Your task to perform on an android device: Look up the best rated hair dryer on Walmart. Image 0: 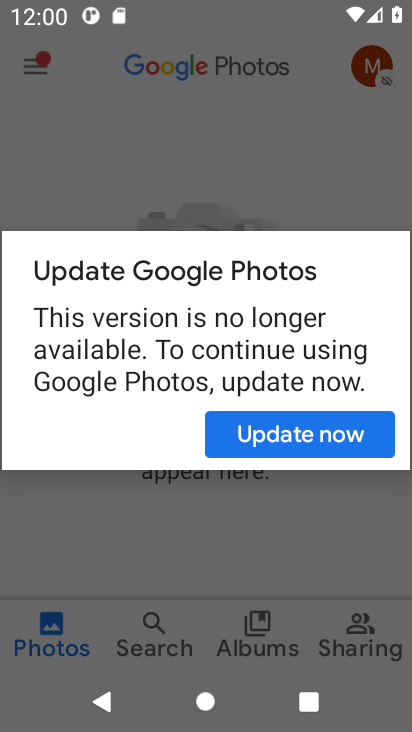
Step 0: press home button
Your task to perform on an android device: Look up the best rated hair dryer on Walmart. Image 1: 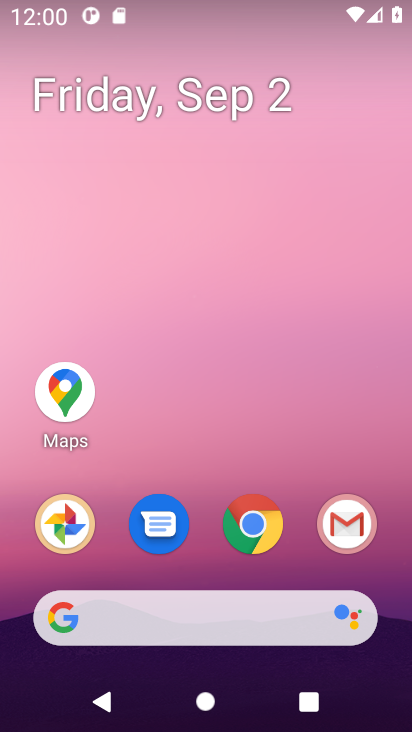
Step 1: drag from (388, 483) to (391, 112)
Your task to perform on an android device: Look up the best rated hair dryer on Walmart. Image 2: 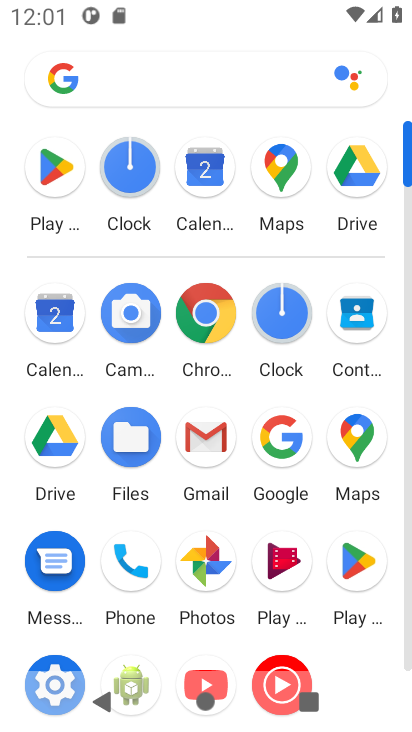
Step 2: click (206, 321)
Your task to perform on an android device: Look up the best rated hair dryer on Walmart. Image 3: 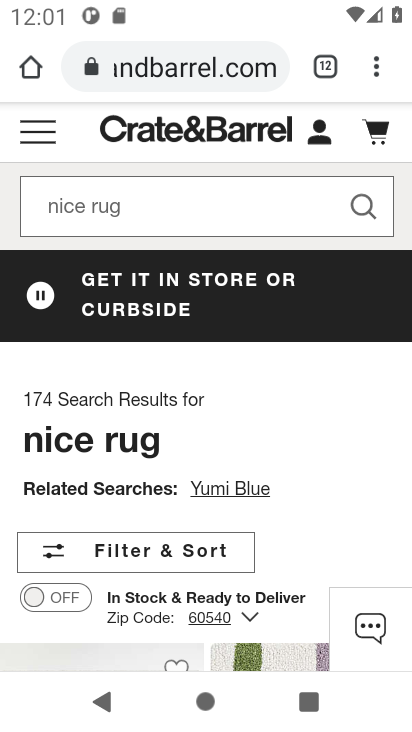
Step 3: click (222, 63)
Your task to perform on an android device: Look up the best rated hair dryer on Walmart. Image 4: 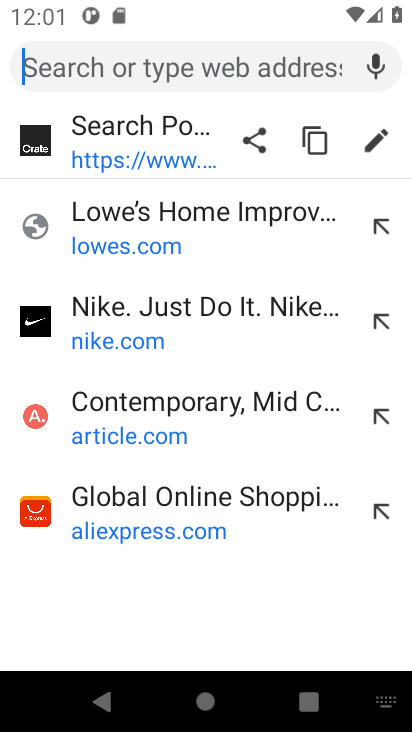
Step 4: press enter
Your task to perform on an android device: Look up the best rated hair dryer on Walmart. Image 5: 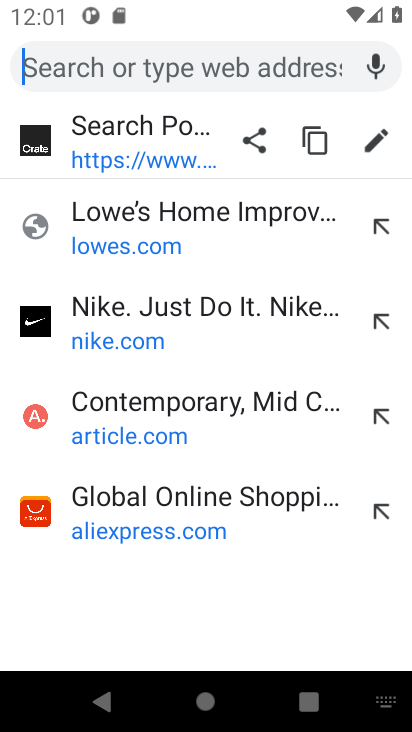
Step 5: type "walmart"
Your task to perform on an android device: Look up the best rated hair dryer on Walmart. Image 6: 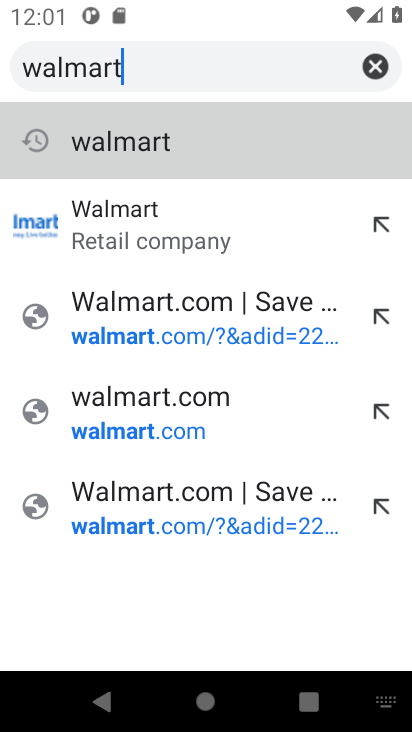
Step 6: click (161, 213)
Your task to perform on an android device: Look up the best rated hair dryer on Walmart. Image 7: 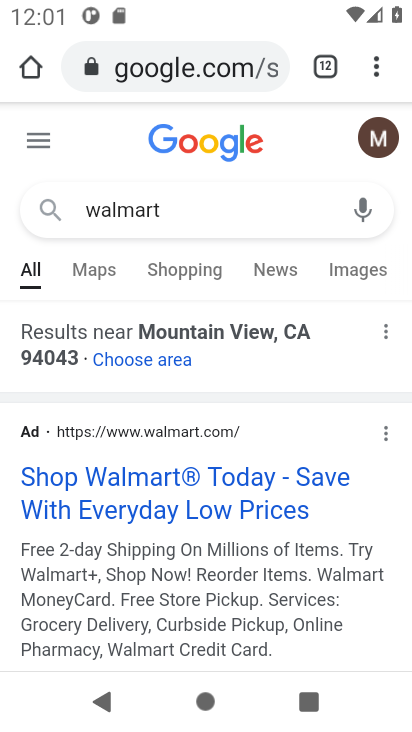
Step 7: click (245, 478)
Your task to perform on an android device: Look up the best rated hair dryer on Walmart. Image 8: 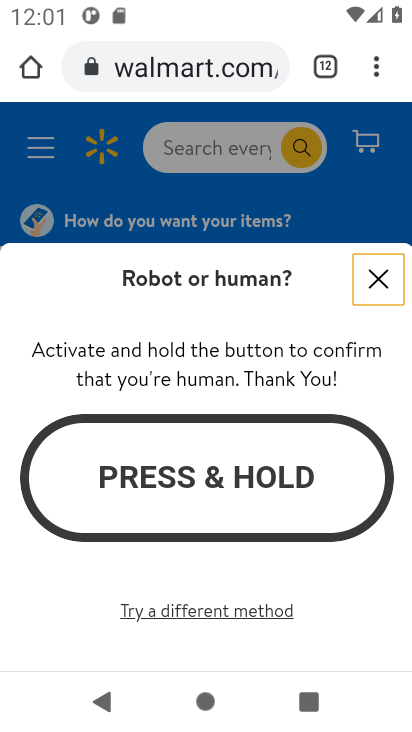
Step 8: click (374, 274)
Your task to perform on an android device: Look up the best rated hair dryer on Walmart. Image 9: 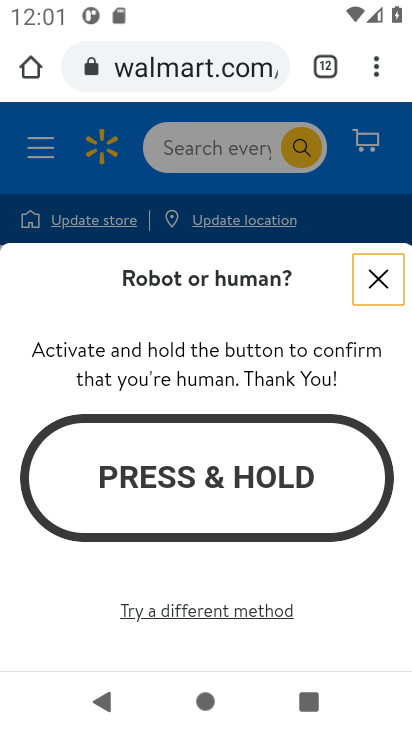
Step 9: click (382, 283)
Your task to perform on an android device: Look up the best rated hair dryer on Walmart. Image 10: 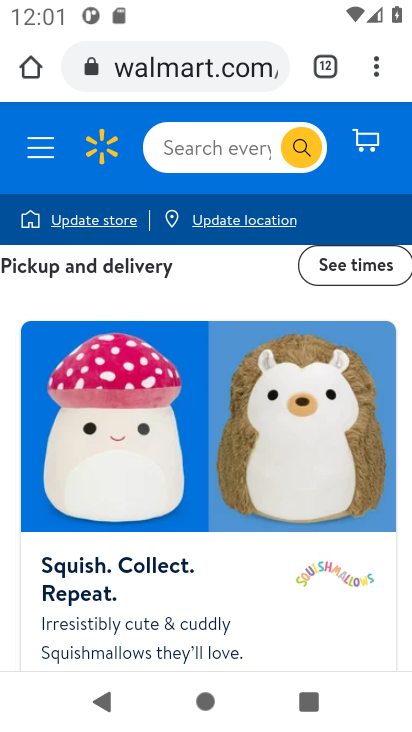
Step 10: click (211, 138)
Your task to perform on an android device: Look up the best rated hair dryer on Walmart. Image 11: 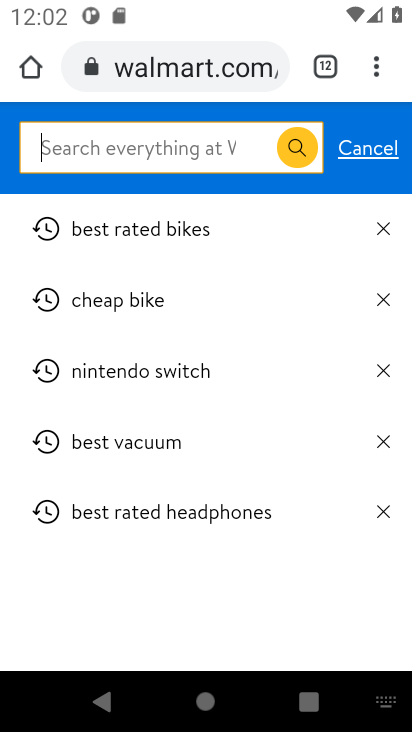
Step 11: press enter
Your task to perform on an android device: Look up the best rated hair dryer on Walmart. Image 12: 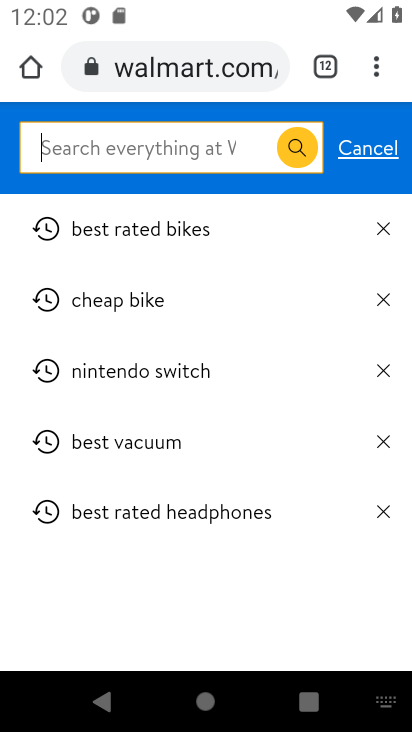
Step 12: type " best rated hair dryer"
Your task to perform on an android device: Look up the best rated hair dryer on Walmart. Image 13: 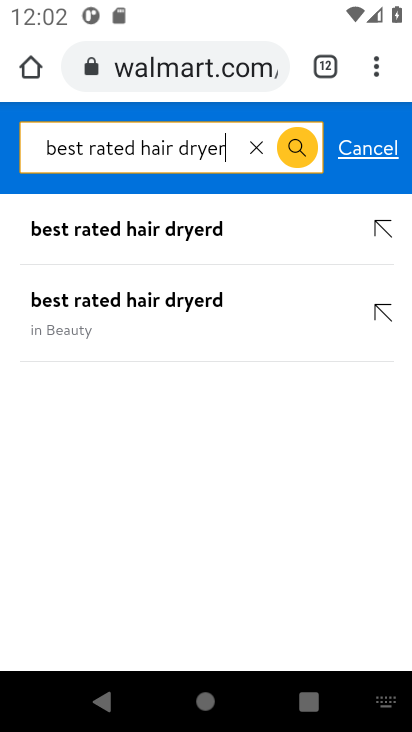
Step 13: click (296, 142)
Your task to perform on an android device: Look up the best rated hair dryer on Walmart. Image 14: 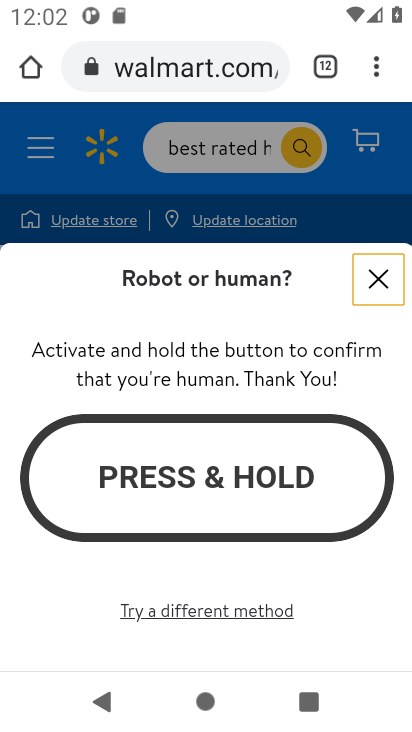
Step 14: click (379, 281)
Your task to perform on an android device: Look up the best rated hair dryer on Walmart. Image 15: 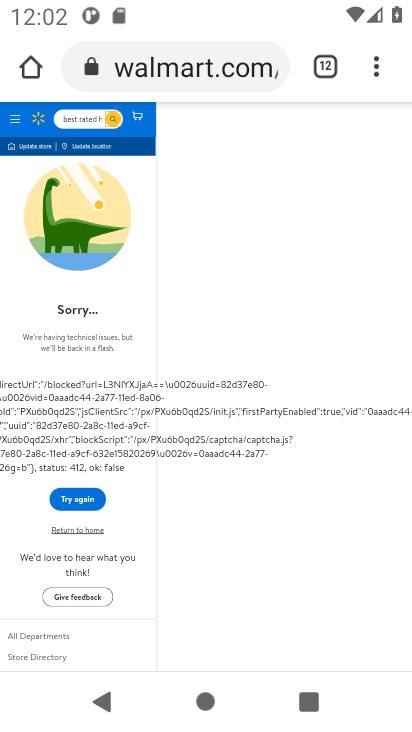
Step 15: task complete